Your task to perform on an android device: empty trash in google photos Image 0: 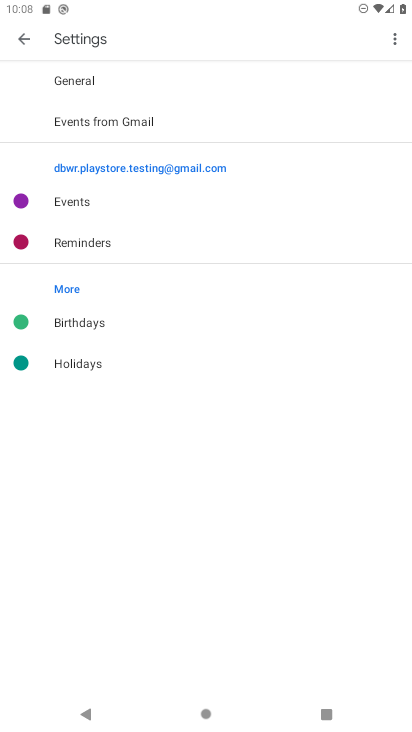
Step 0: press home button
Your task to perform on an android device: empty trash in google photos Image 1: 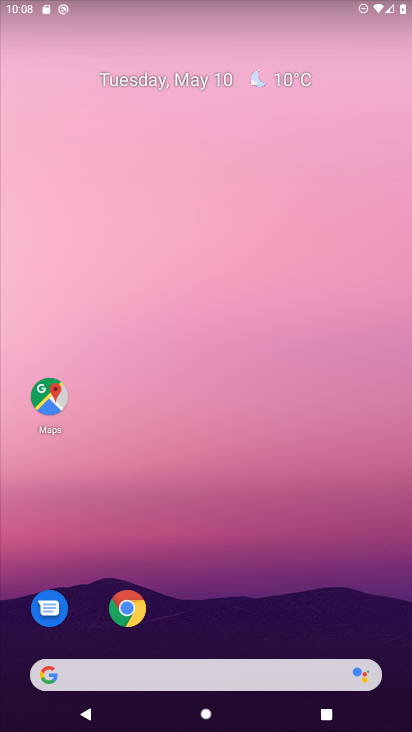
Step 1: drag from (384, 644) to (276, 75)
Your task to perform on an android device: empty trash in google photos Image 2: 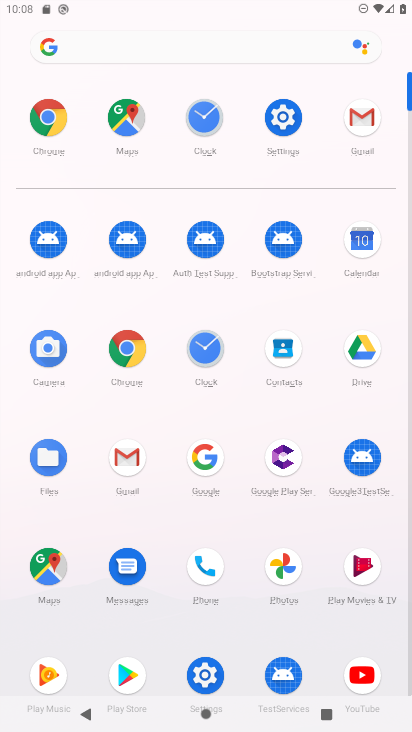
Step 2: click (288, 567)
Your task to perform on an android device: empty trash in google photos Image 3: 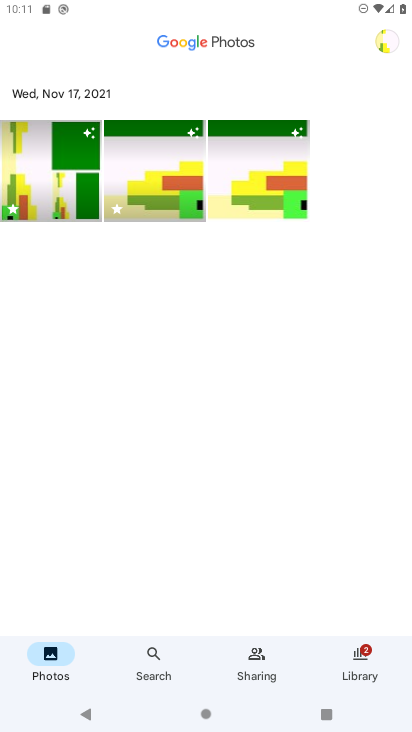
Step 3: click (370, 662)
Your task to perform on an android device: empty trash in google photos Image 4: 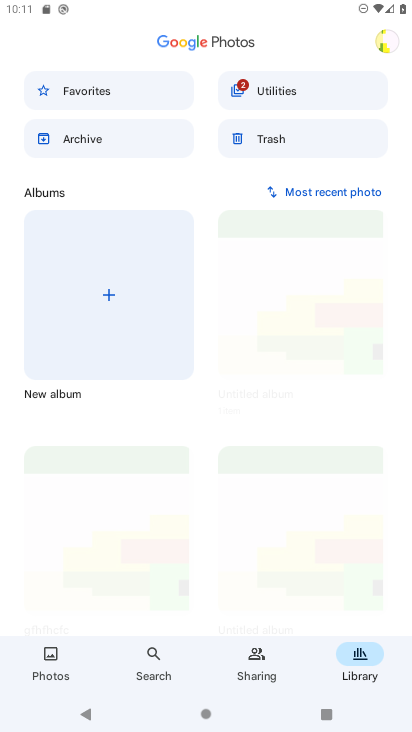
Step 4: click (313, 137)
Your task to perform on an android device: empty trash in google photos Image 5: 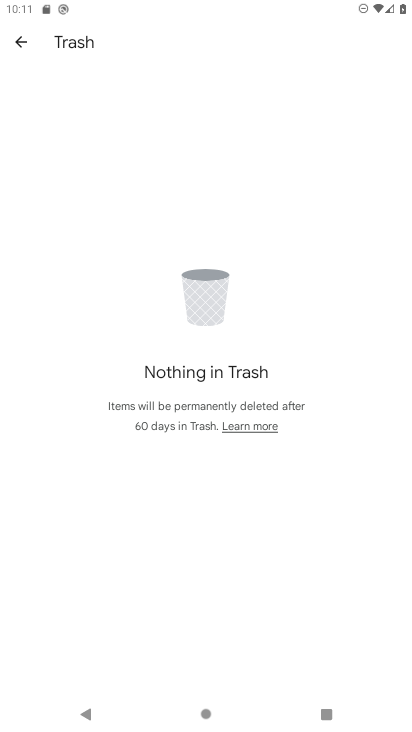
Step 5: task complete